Your task to perform on an android device: toggle airplane mode Image 0: 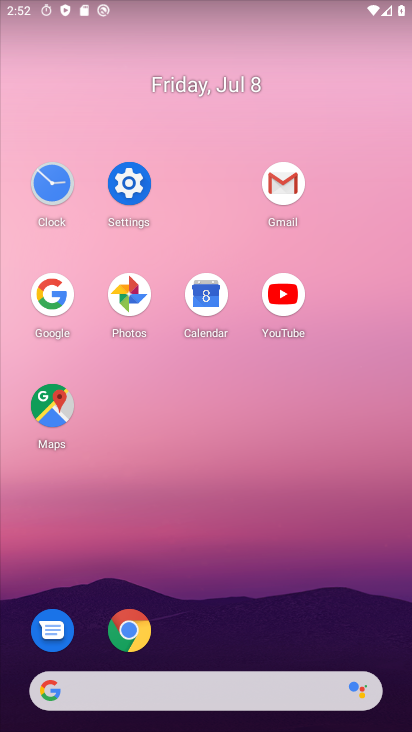
Step 0: click (146, 197)
Your task to perform on an android device: toggle airplane mode Image 1: 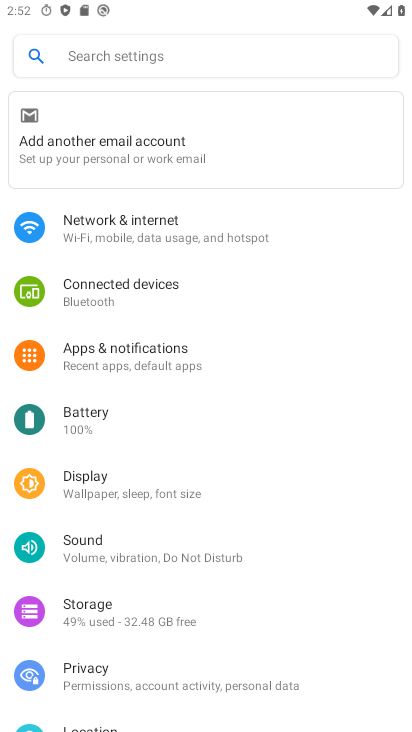
Step 1: click (297, 242)
Your task to perform on an android device: toggle airplane mode Image 2: 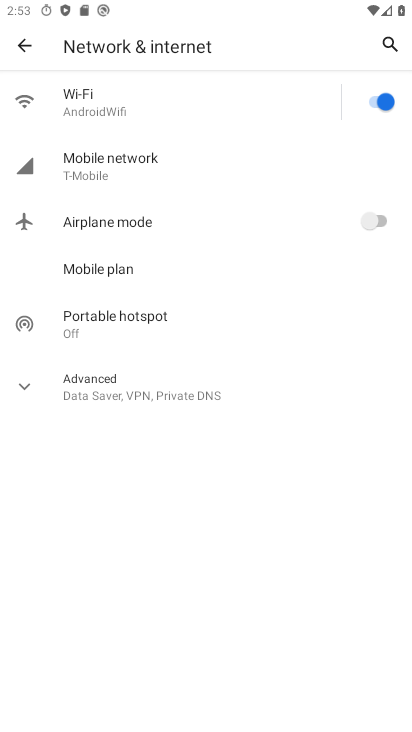
Step 2: click (365, 214)
Your task to perform on an android device: toggle airplane mode Image 3: 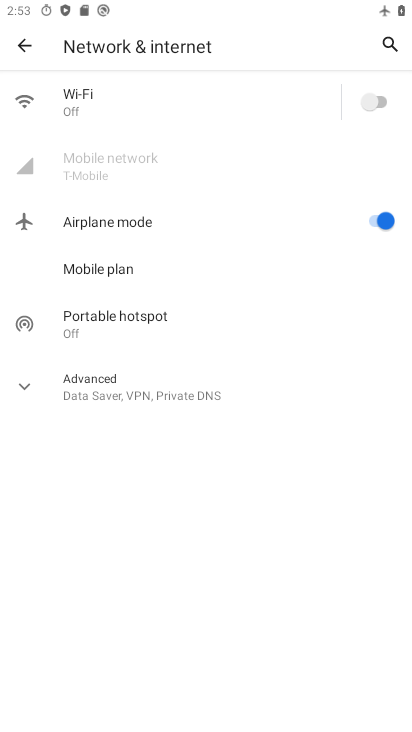
Step 3: task complete